Your task to perform on an android device: read, delete, or share a saved page in the chrome app Image 0: 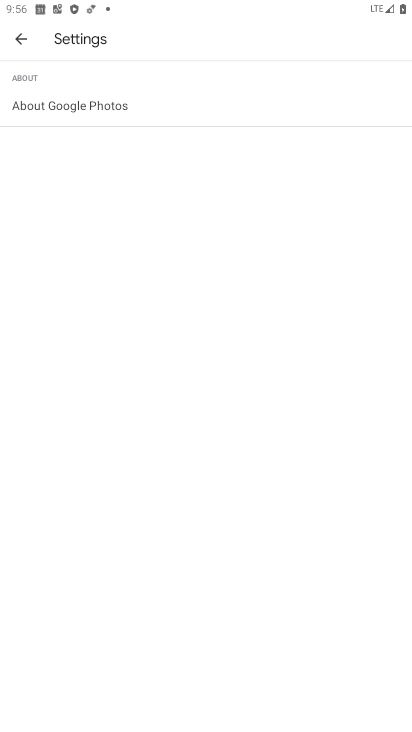
Step 0: press home button
Your task to perform on an android device: read, delete, or share a saved page in the chrome app Image 1: 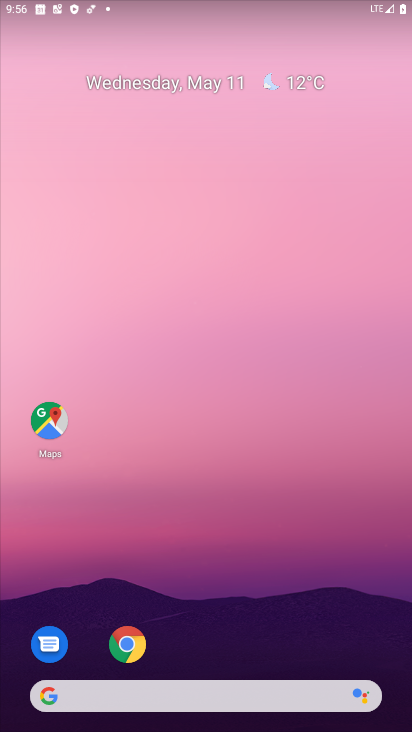
Step 1: click (120, 633)
Your task to perform on an android device: read, delete, or share a saved page in the chrome app Image 2: 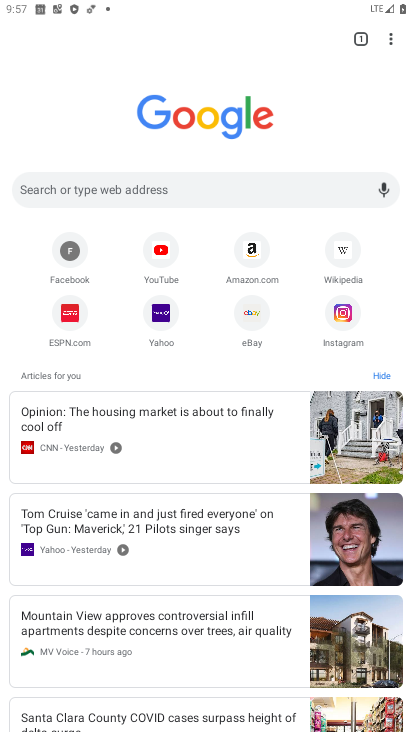
Step 2: click (386, 48)
Your task to perform on an android device: read, delete, or share a saved page in the chrome app Image 3: 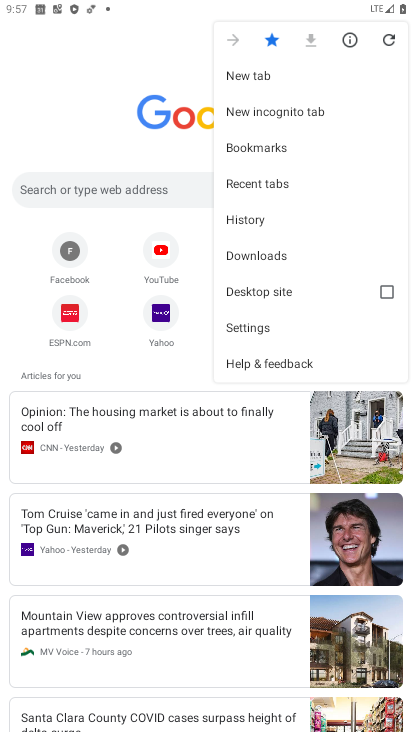
Step 3: click (268, 333)
Your task to perform on an android device: read, delete, or share a saved page in the chrome app Image 4: 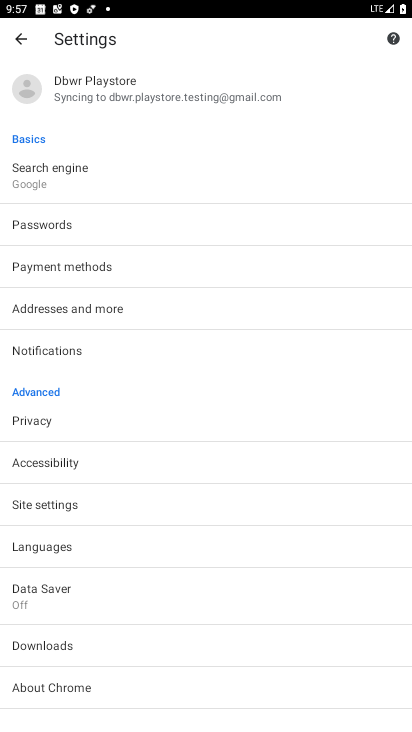
Step 4: click (256, 656)
Your task to perform on an android device: read, delete, or share a saved page in the chrome app Image 5: 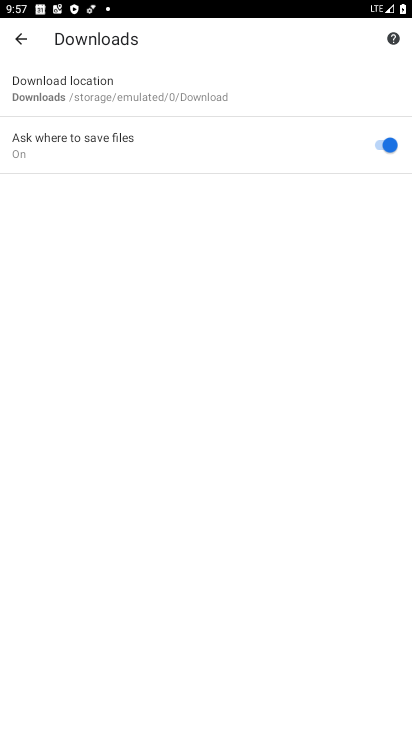
Step 5: task complete